Your task to perform on an android device: open a new tab in the chrome app Image 0: 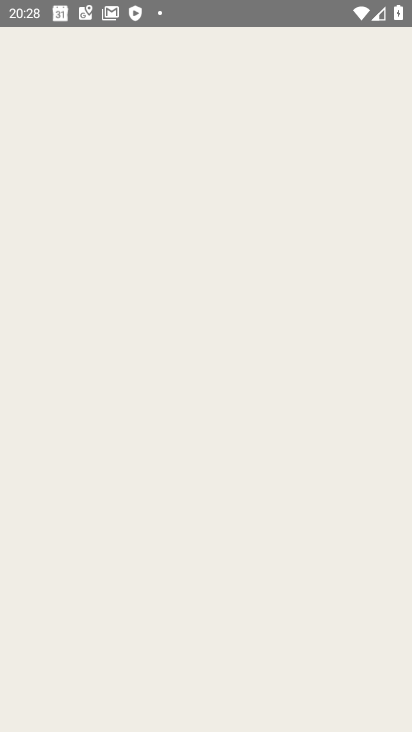
Step 0: click (174, 277)
Your task to perform on an android device: open a new tab in the chrome app Image 1: 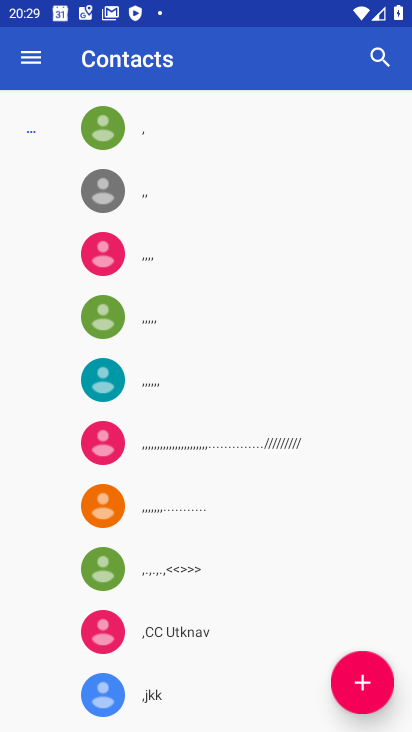
Step 1: press home button
Your task to perform on an android device: open a new tab in the chrome app Image 2: 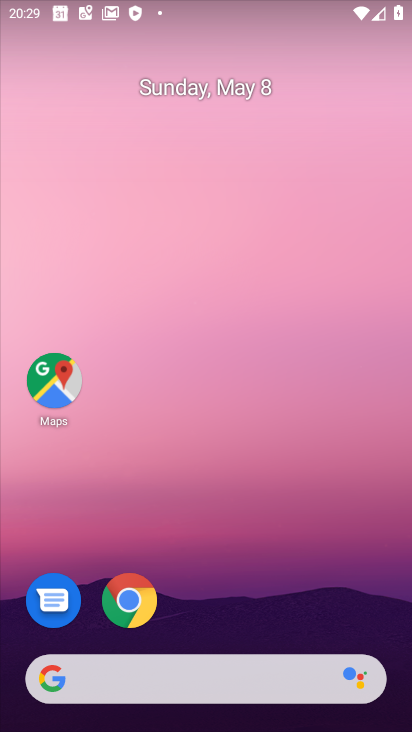
Step 2: drag from (258, 702) to (220, 203)
Your task to perform on an android device: open a new tab in the chrome app Image 3: 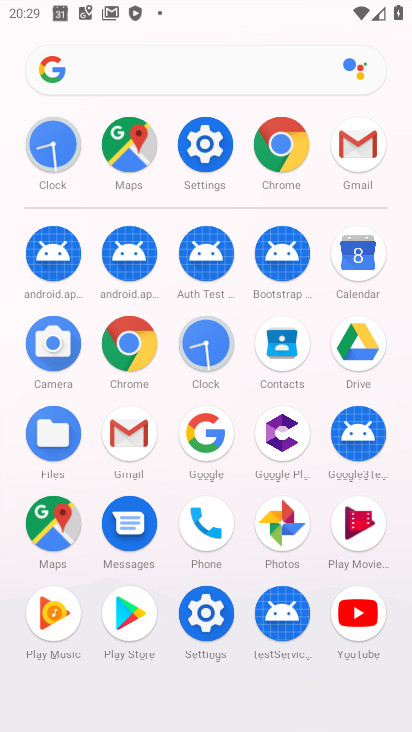
Step 3: click (272, 135)
Your task to perform on an android device: open a new tab in the chrome app Image 4: 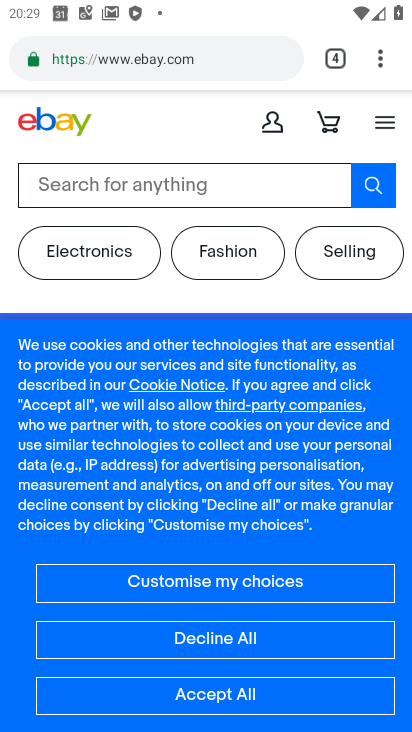
Step 4: click (383, 82)
Your task to perform on an android device: open a new tab in the chrome app Image 5: 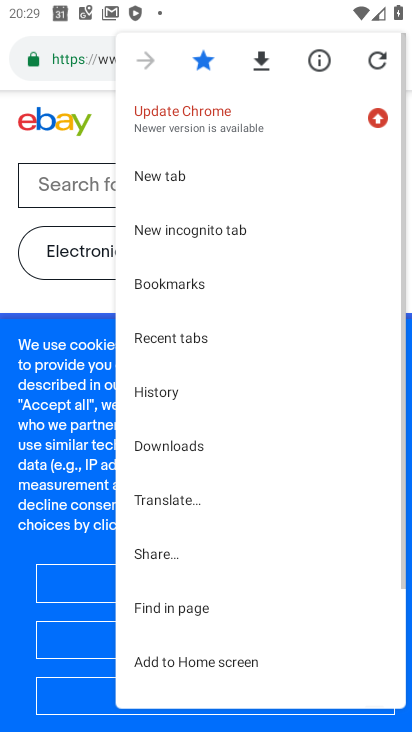
Step 5: click (260, 175)
Your task to perform on an android device: open a new tab in the chrome app Image 6: 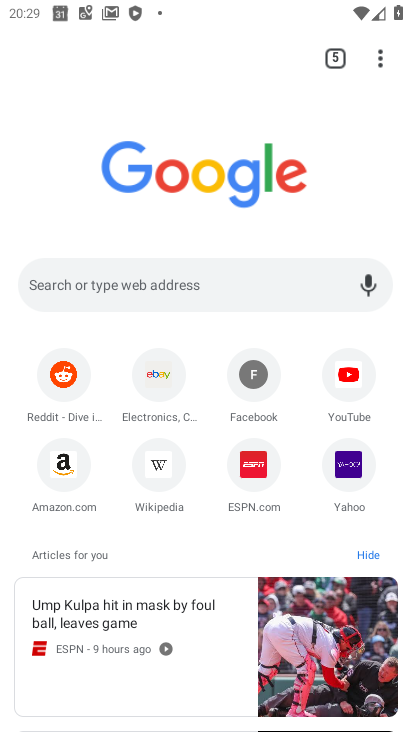
Step 6: task complete